Your task to perform on an android device: turn notification dots on Image 0: 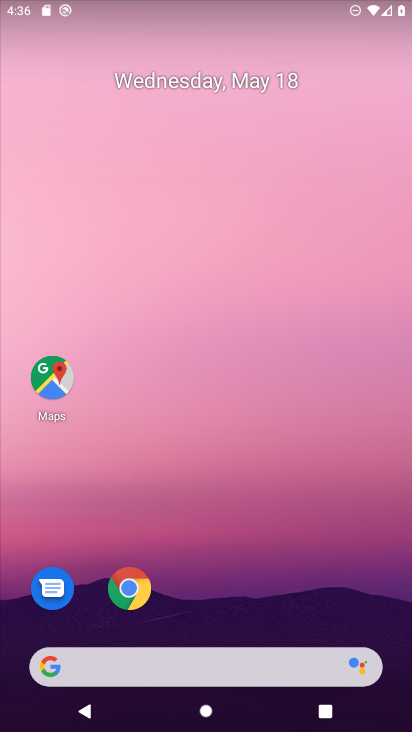
Step 0: drag from (272, 556) to (294, 145)
Your task to perform on an android device: turn notification dots on Image 1: 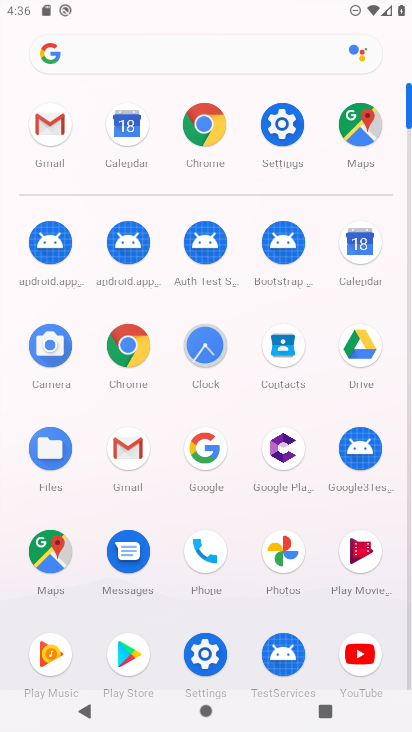
Step 1: click (278, 159)
Your task to perform on an android device: turn notification dots on Image 2: 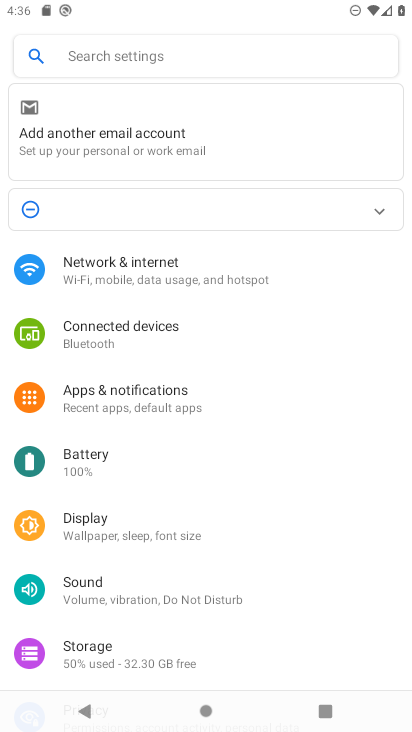
Step 2: click (181, 387)
Your task to perform on an android device: turn notification dots on Image 3: 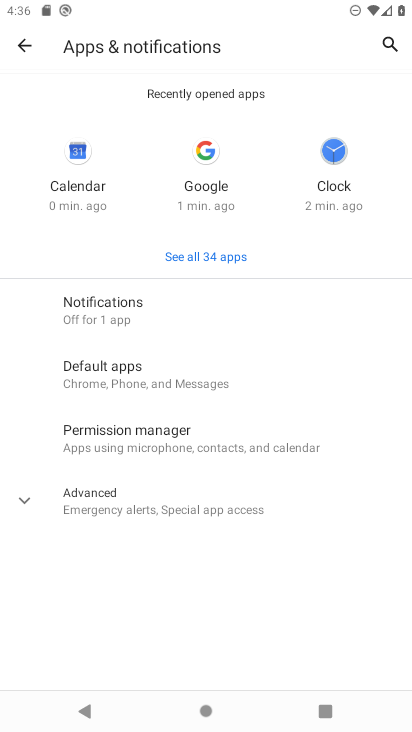
Step 3: click (155, 496)
Your task to perform on an android device: turn notification dots on Image 4: 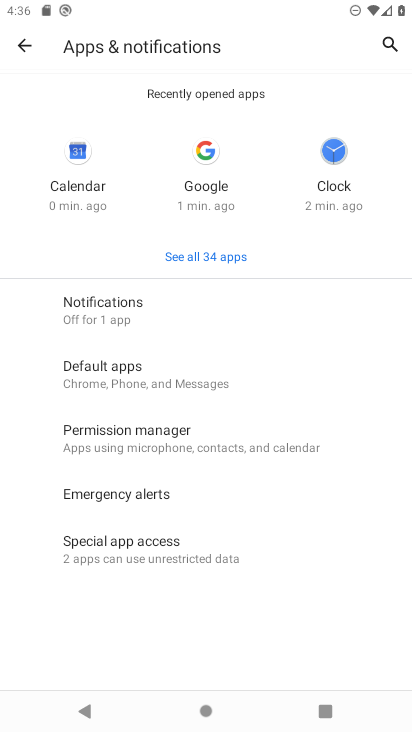
Step 4: click (119, 336)
Your task to perform on an android device: turn notification dots on Image 5: 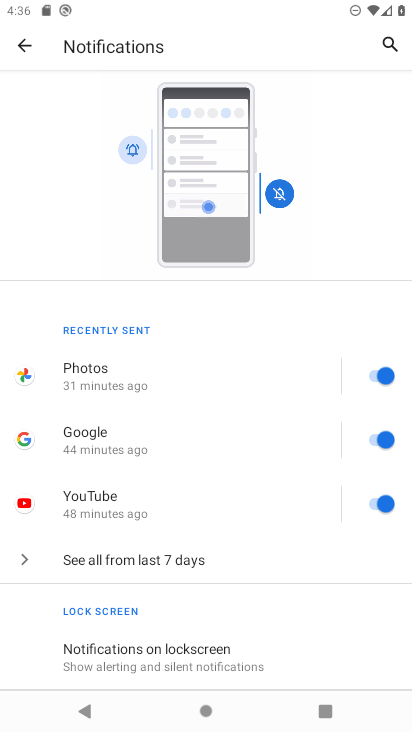
Step 5: drag from (141, 602) to (186, 122)
Your task to perform on an android device: turn notification dots on Image 6: 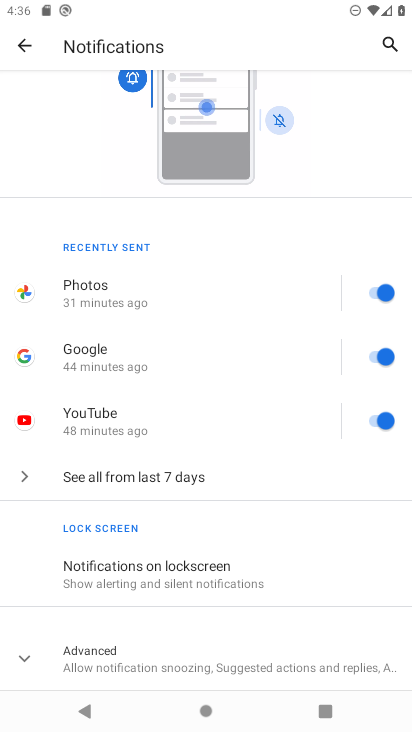
Step 6: drag from (209, 609) to (255, 154)
Your task to perform on an android device: turn notification dots on Image 7: 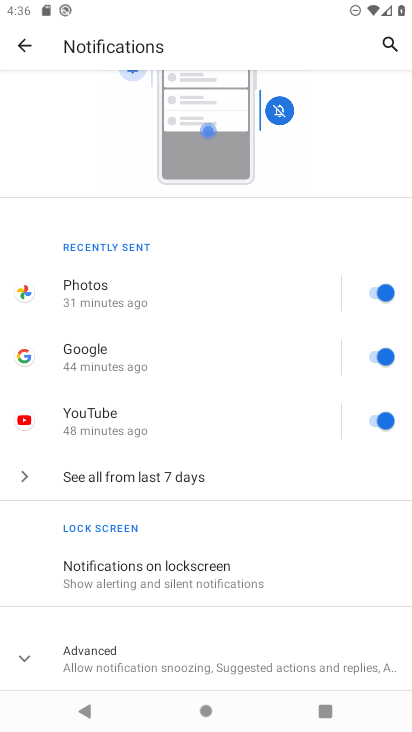
Step 7: drag from (237, 631) to (266, 243)
Your task to perform on an android device: turn notification dots on Image 8: 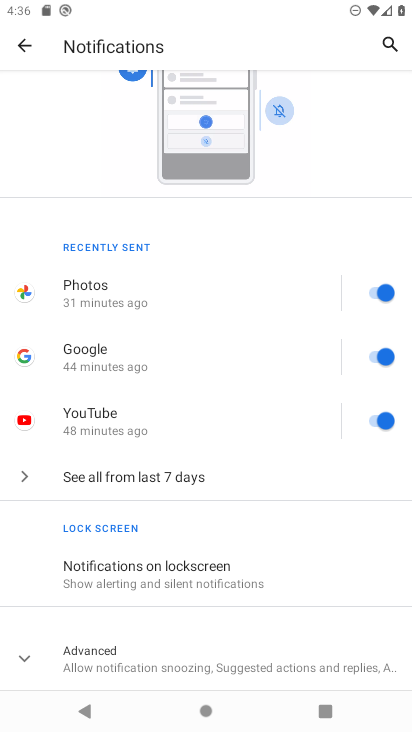
Step 8: click (174, 642)
Your task to perform on an android device: turn notification dots on Image 9: 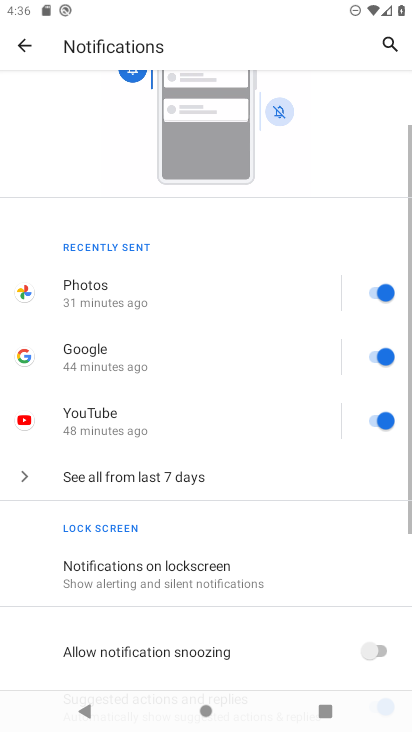
Step 9: drag from (293, 604) to (315, 283)
Your task to perform on an android device: turn notification dots on Image 10: 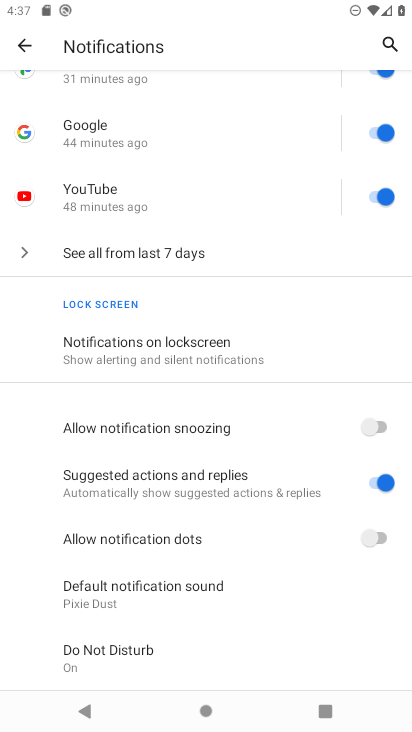
Step 10: click (374, 524)
Your task to perform on an android device: turn notification dots on Image 11: 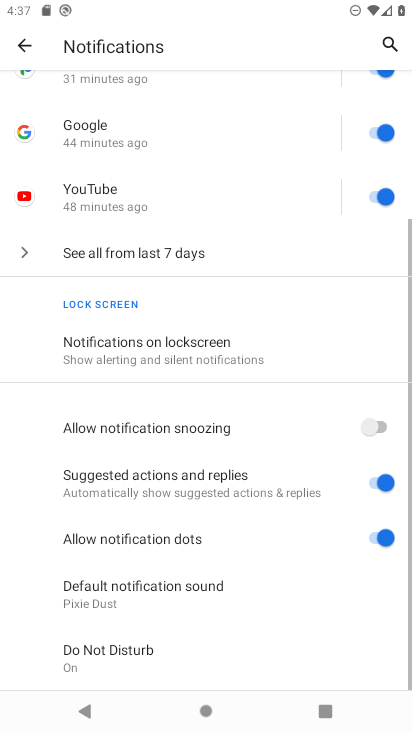
Step 11: task complete